Your task to perform on an android device: Open Youtube and go to the subscriptions tab Image 0: 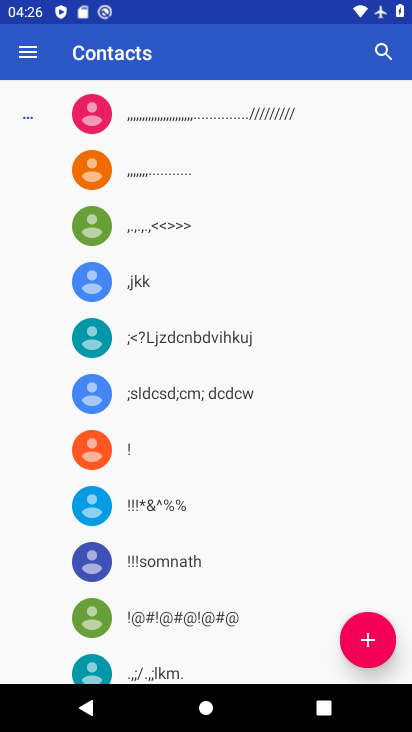
Step 0: press home button
Your task to perform on an android device: Open Youtube and go to the subscriptions tab Image 1: 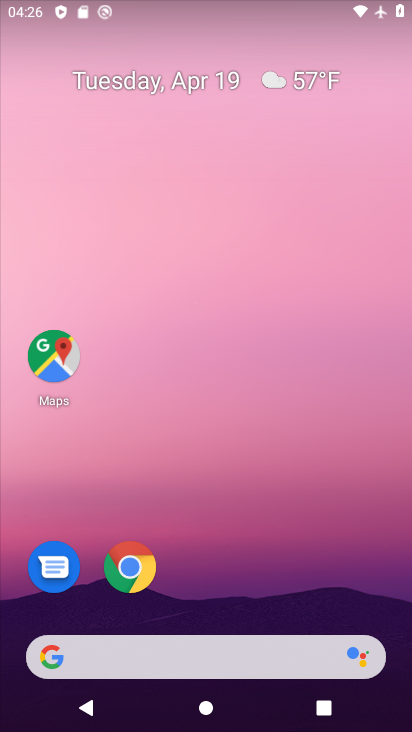
Step 1: drag from (361, 585) to (369, 176)
Your task to perform on an android device: Open Youtube and go to the subscriptions tab Image 2: 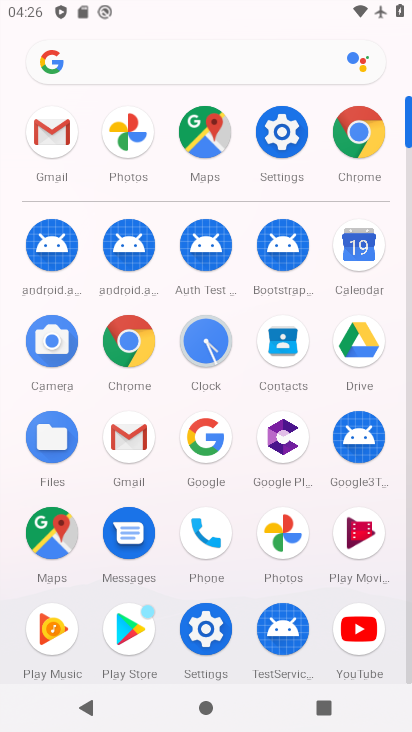
Step 2: click (359, 633)
Your task to perform on an android device: Open Youtube and go to the subscriptions tab Image 3: 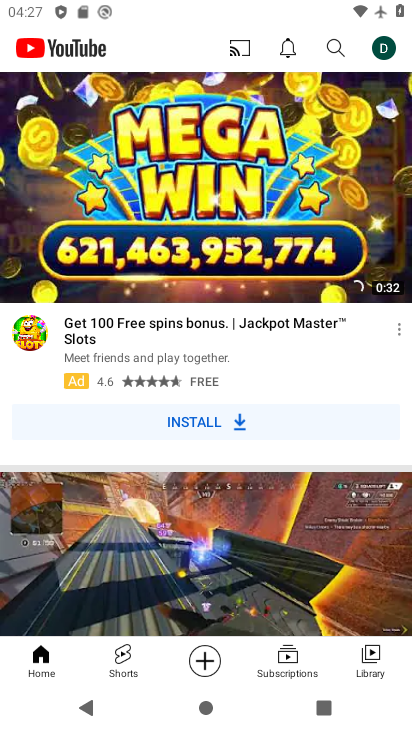
Step 3: click (270, 666)
Your task to perform on an android device: Open Youtube and go to the subscriptions tab Image 4: 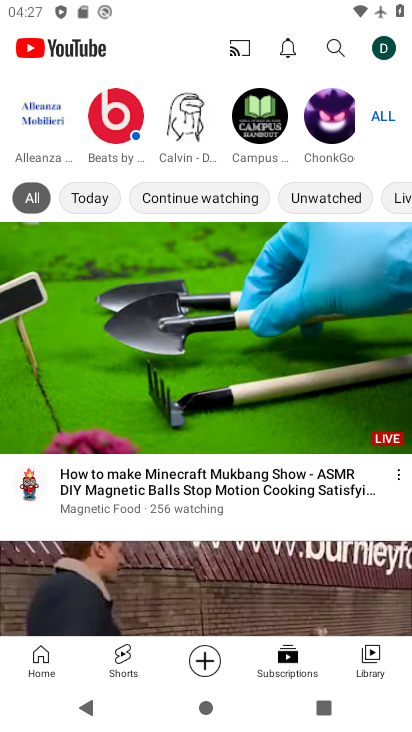
Step 4: task complete